Your task to perform on an android device: turn vacation reply on in the gmail app Image 0: 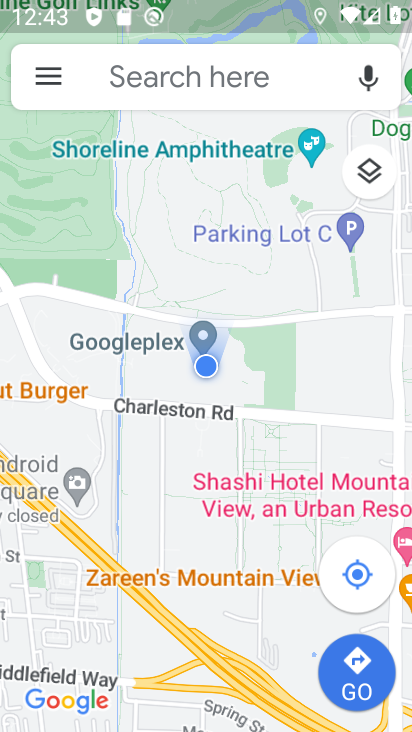
Step 0: press back button
Your task to perform on an android device: turn vacation reply on in the gmail app Image 1: 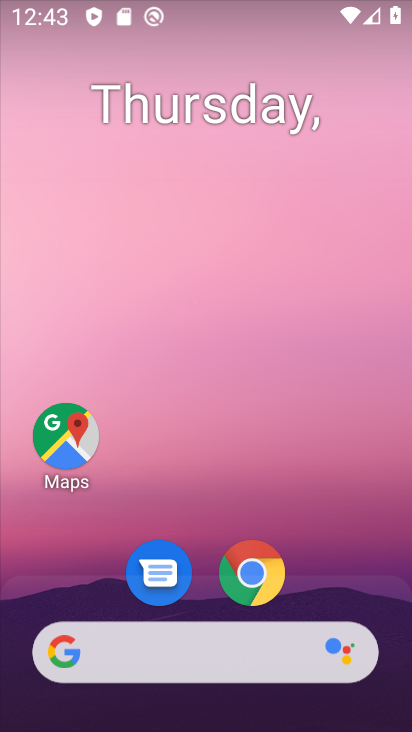
Step 1: drag from (173, 615) to (242, 89)
Your task to perform on an android device: turn vacation reply on in the gmail app Image 2: 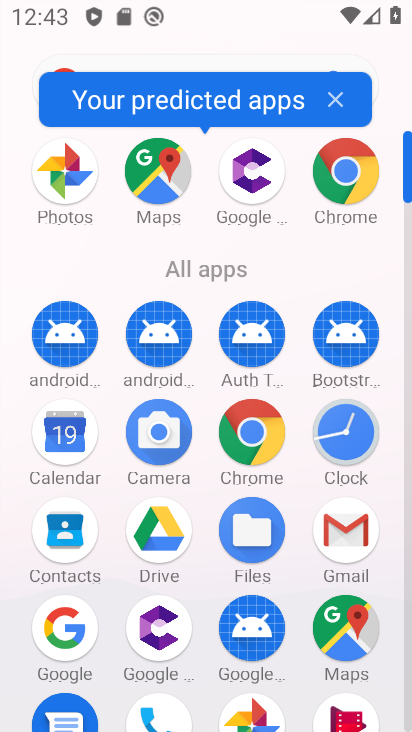
Step 2: click (326, 549)
Your task to perform on an android device: turn vacation reply on in the gmail app Image 3: 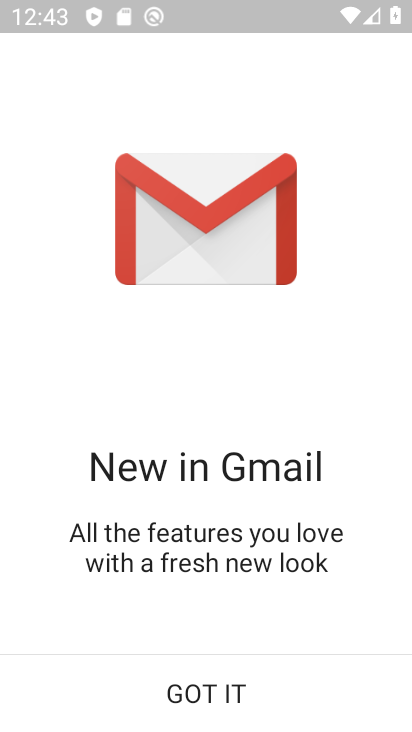
Step 3: click (213, 680)
Your task to perform on an android device: turn vacation reply on in the gmail app Image 4: 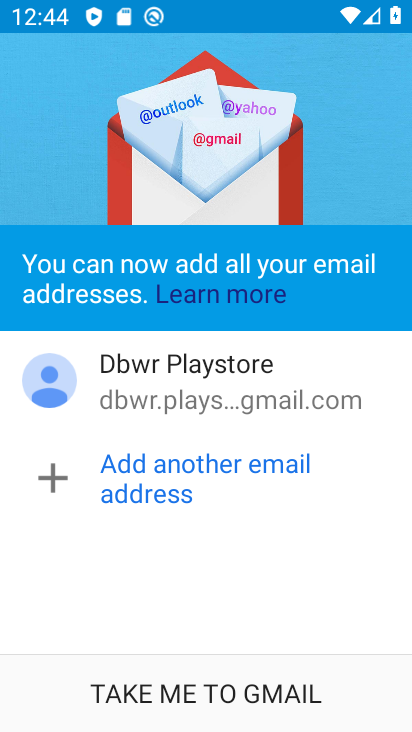
Step 4: click (179, 704)
Your task to perform on an android device: turn vacation reply on in the gmail app Image 5: 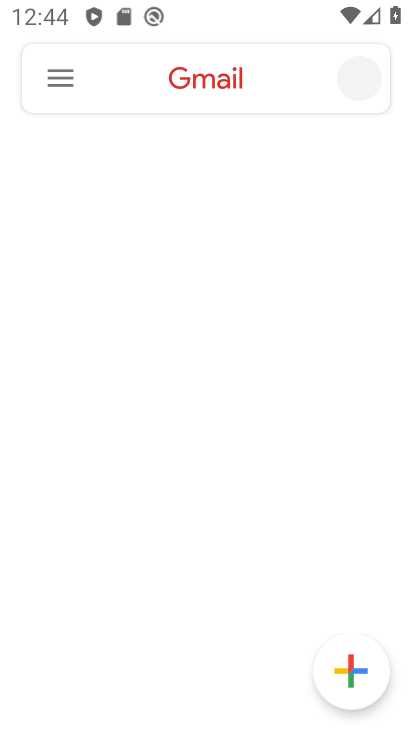
Step 5: click (183, 694)
Your task to perform on an android device: turn vacation reply on in the gmail app Image 6: 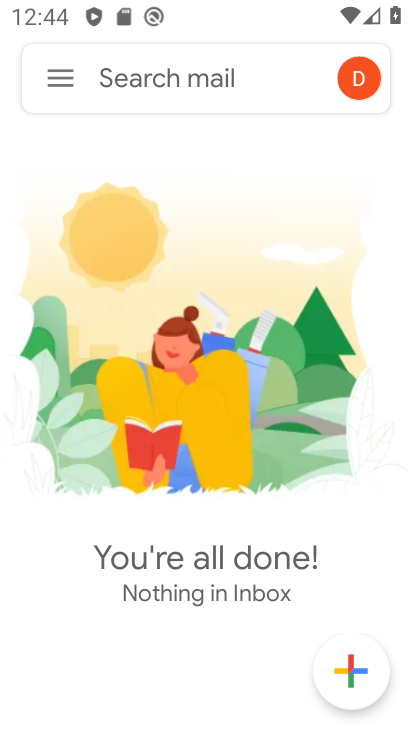
Step 6: click (59, 73)
Your task to perform on an android device: turn vacation reply on in the gmail app Image 7: 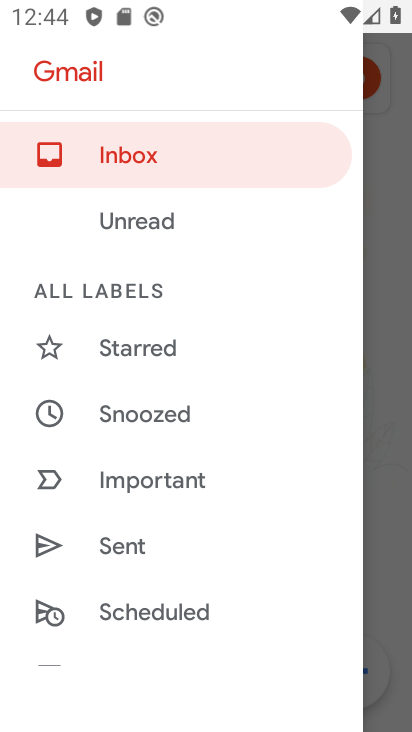
Step 7: drag from (193, 607) to (275, 39)
Your task to perform on an android device: turn vacation reply on in the gmail app Image 8: 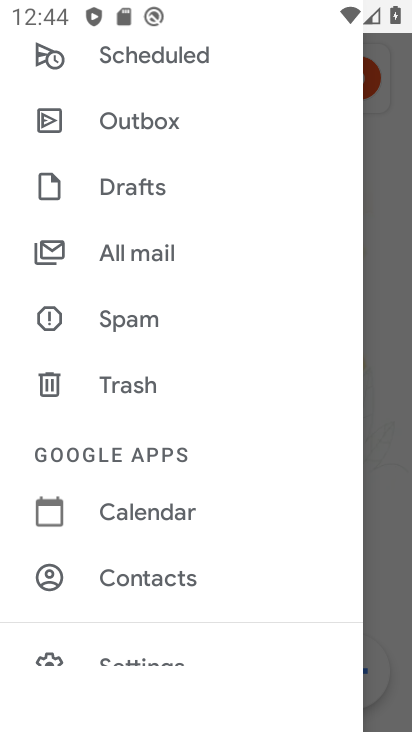
Step 8: drag from (152, 589) to (253, 85)
Your task to perform on an android device: turn vacation reply on in the gmail app Image 9: 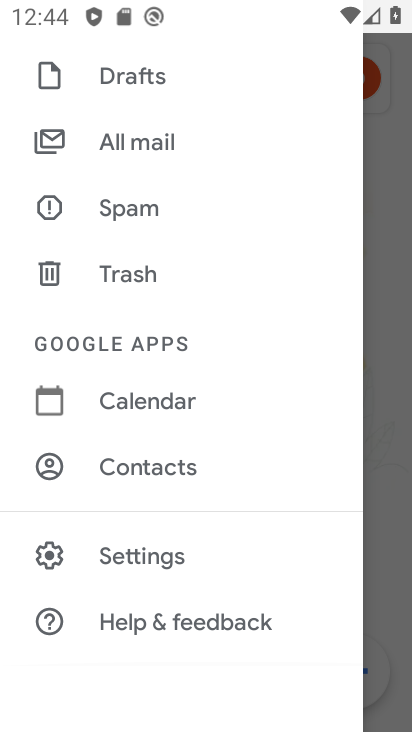
Step 9: click (125, 560)
Your task to perform on an android device: turn vacation reply on in the gmail app Image 10: 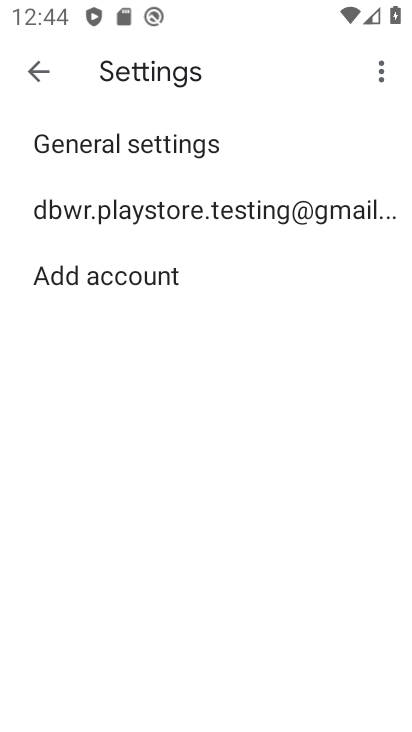
Step 10: click (122, 197)
Your task to perform on an android device: turn vacation reply on in the gmail app Image 11: 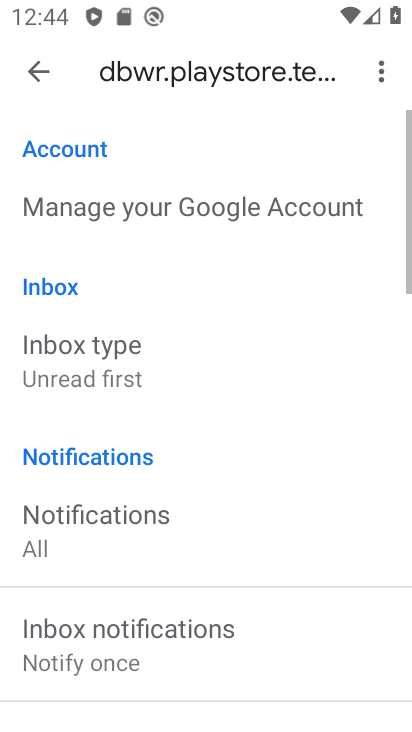
Step 11: drag from (214, 602) to (316, 19)
Your task to perform on an android device: turn vacation reply on in the gmail app Image 12: 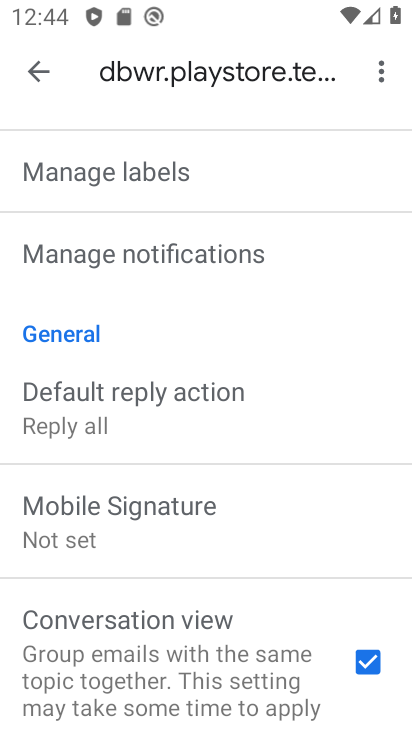
Step 12: drag from (214, 643) to (322, 124)
Your task to perform on an android device: turn vacation reply on in the gmail app Image 13: 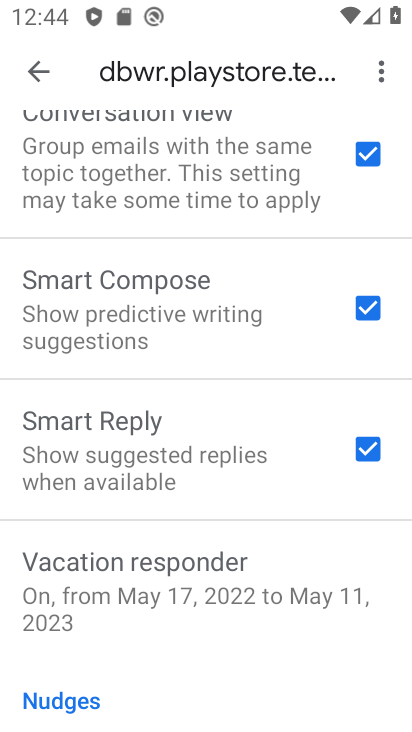
Step 13: click (99, 553)
Your task to perform on an android device: turn vacation reply on in the gmail app Image 14: 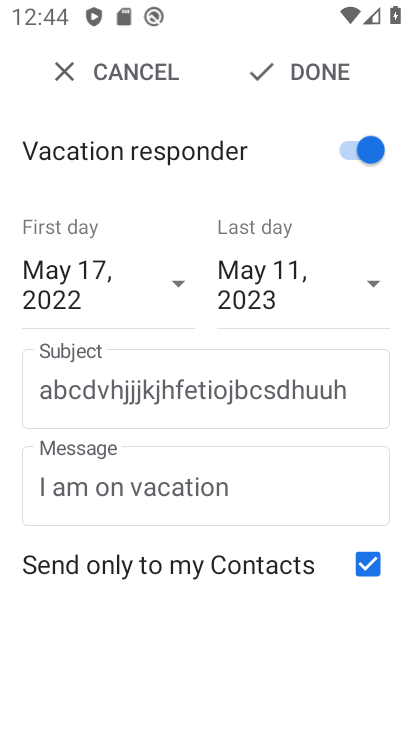
Step 14: task complete